Your task to perform on an android device: Search for the best way to make a resume. Image 0: 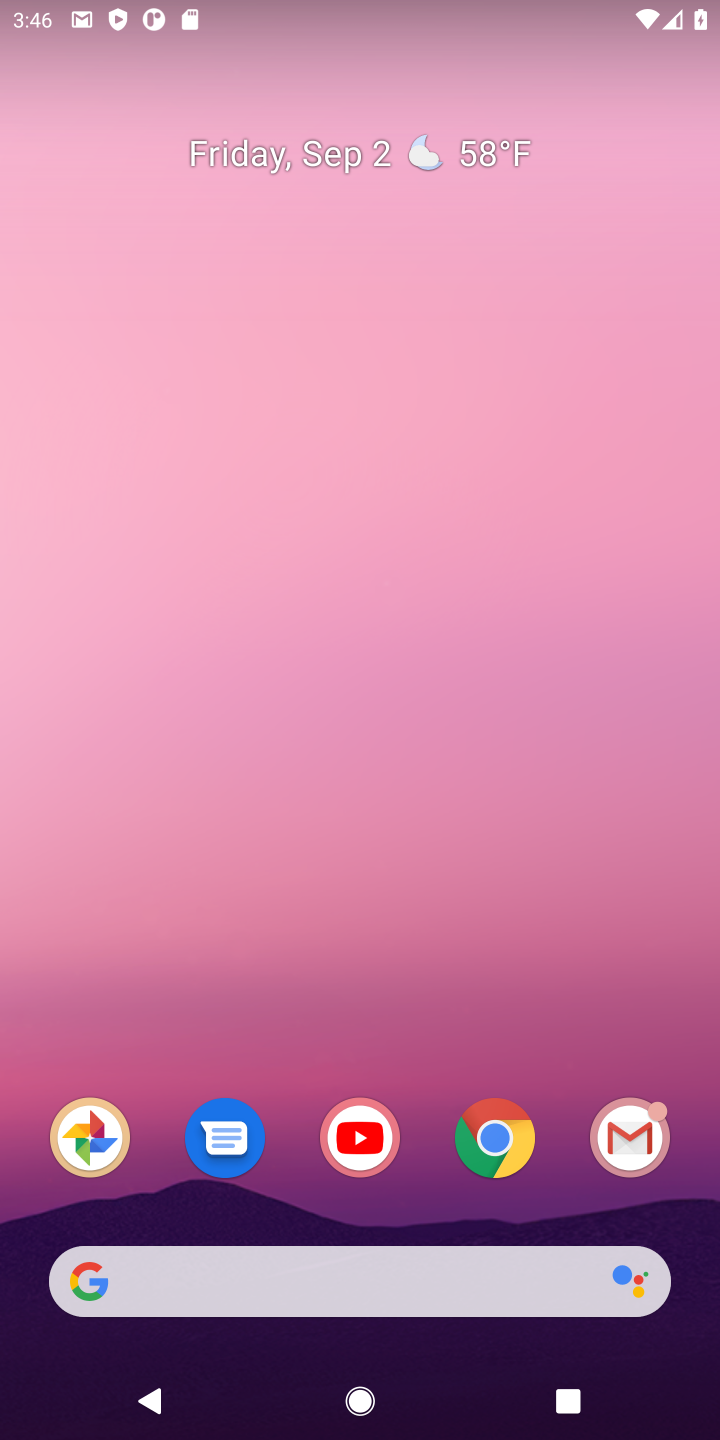
Step 0: press home button
Your task to perform on an android device: Search for the best way to make a resume. Image 1: 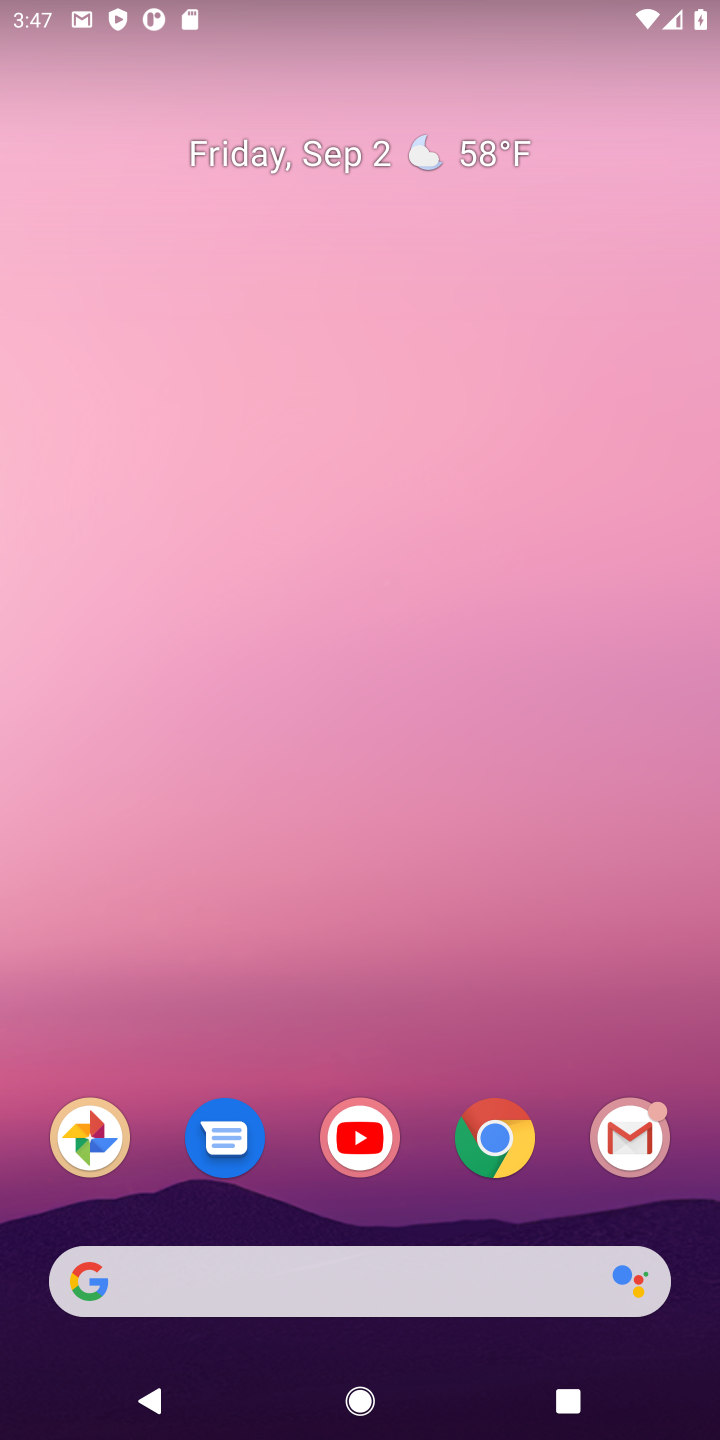
Step 1: click (491, 1164)
Your task to perform on an android device: Search for the best way to make a resume. Image 2: 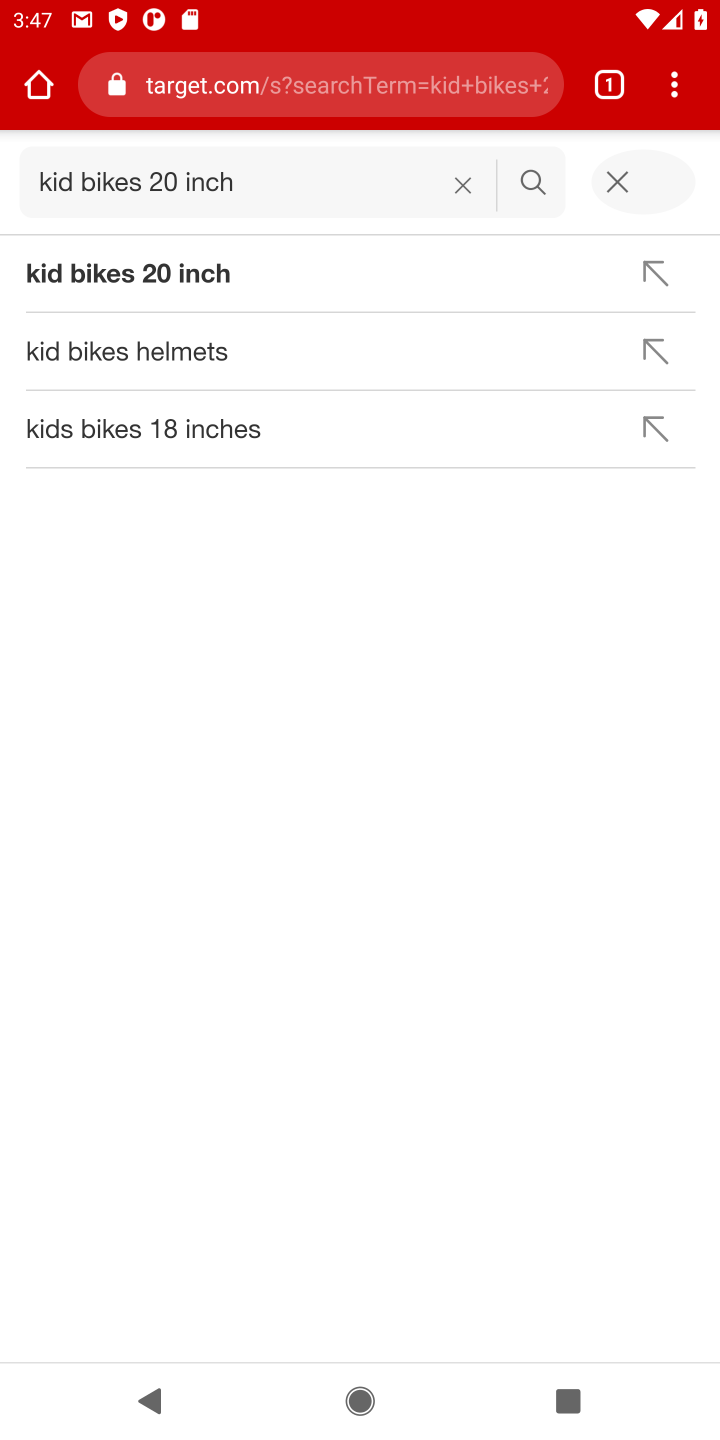
Step 2: click (477, 106)
Your task to perform on an android device: Search for the best way to make a resume. Image 3: 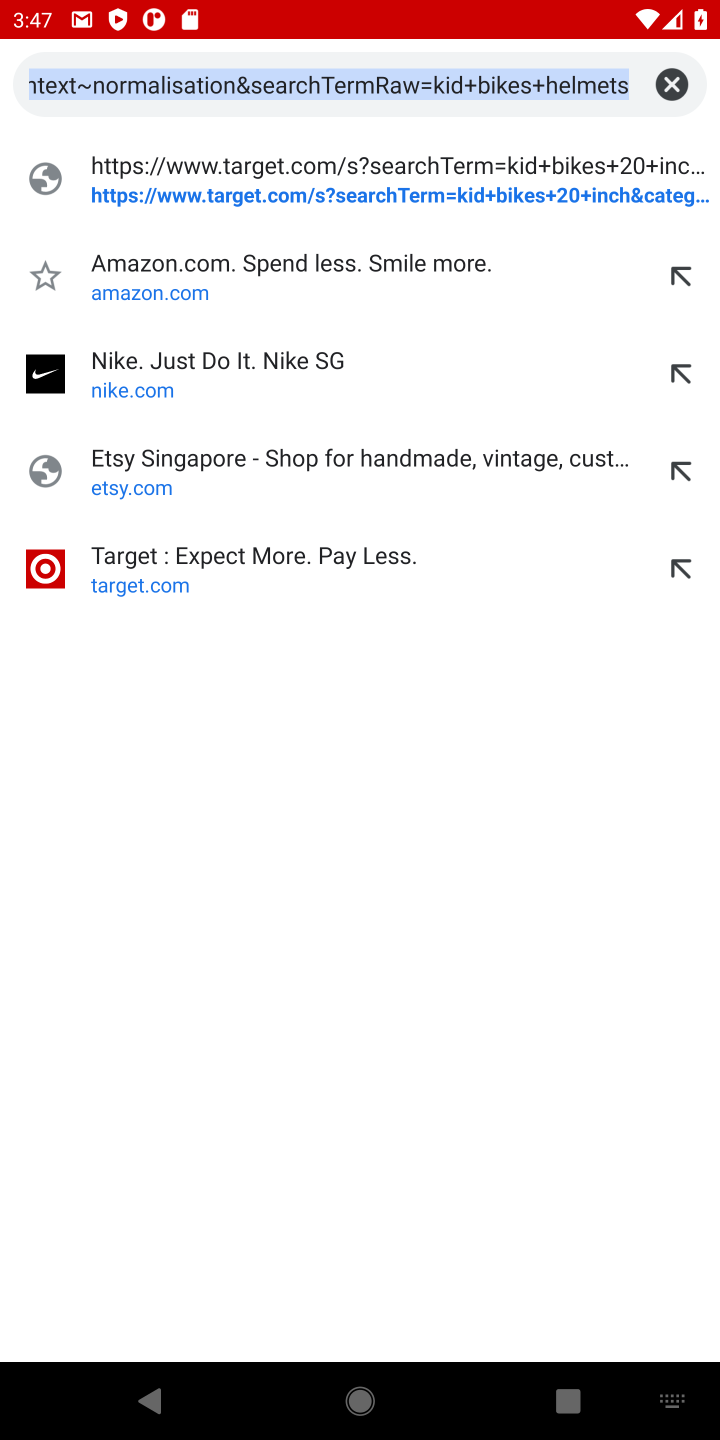
Step 3: type "best way to make a resume"
Your task to perform on an android device: Search for the best way to make a resume. Image 4: 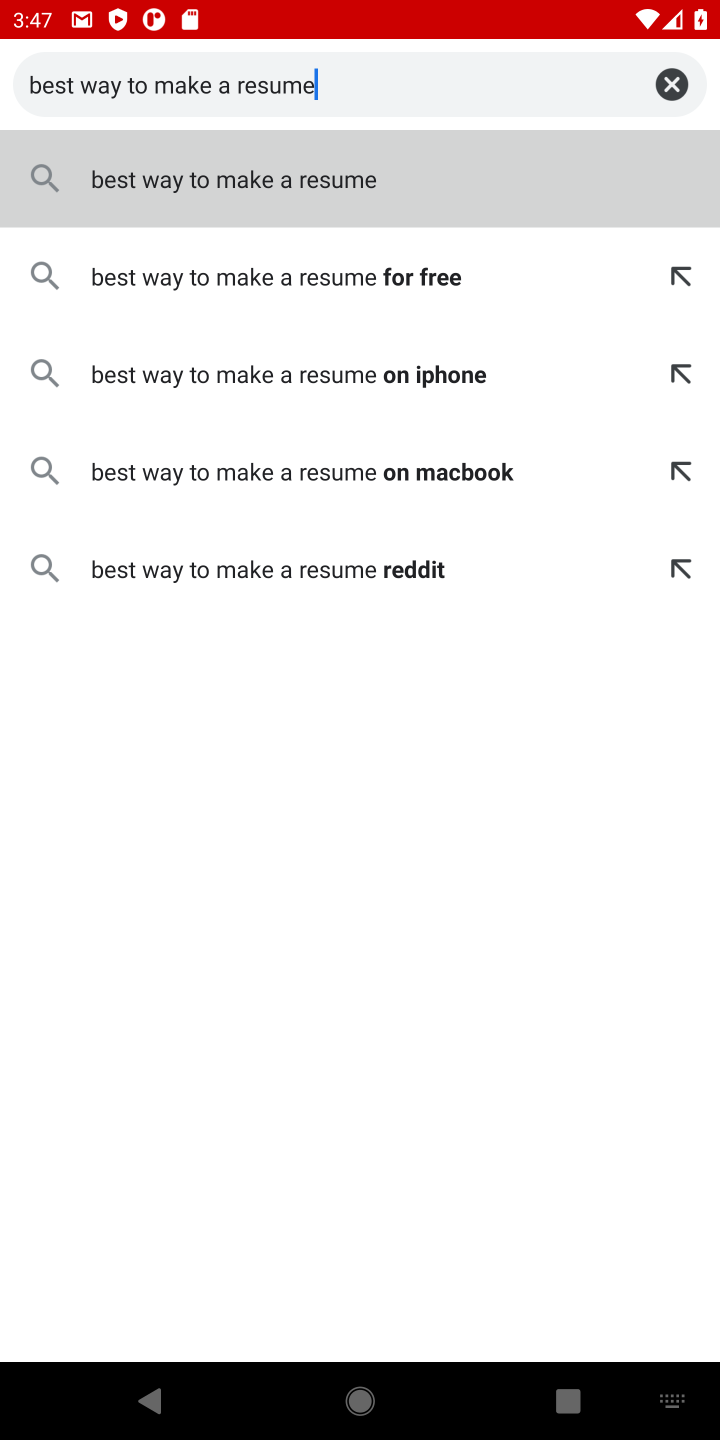
Step 4: click (288, 181)
Your task to perform on an android device: Search for the best way to make a resume. Image 5: 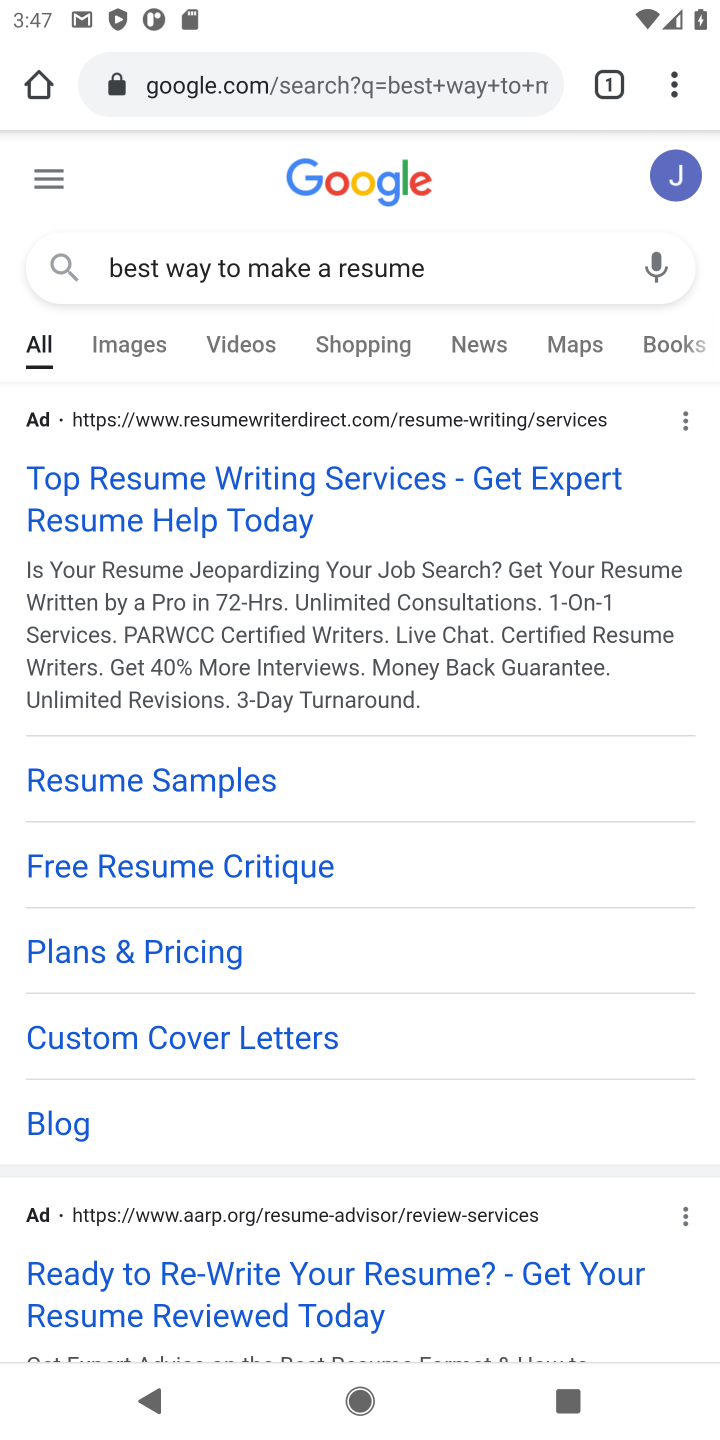
Step 5: task complete